Your task to perform on an android device: open a bookmark in the chrome app Image 0: 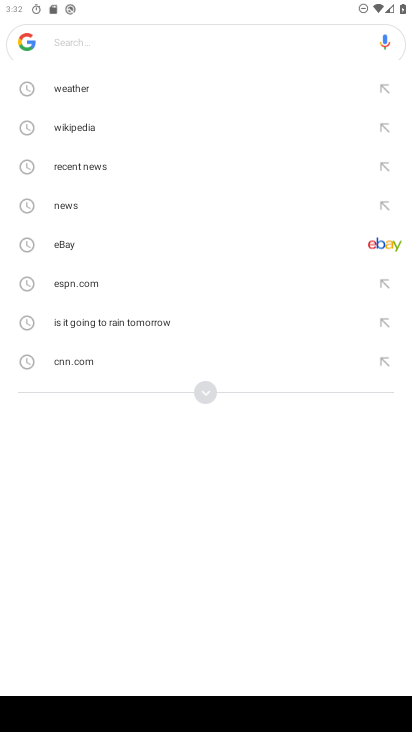
Step 0: press home button
Your task to perform on an android device: open a bookmark in the chrome app Image 1: 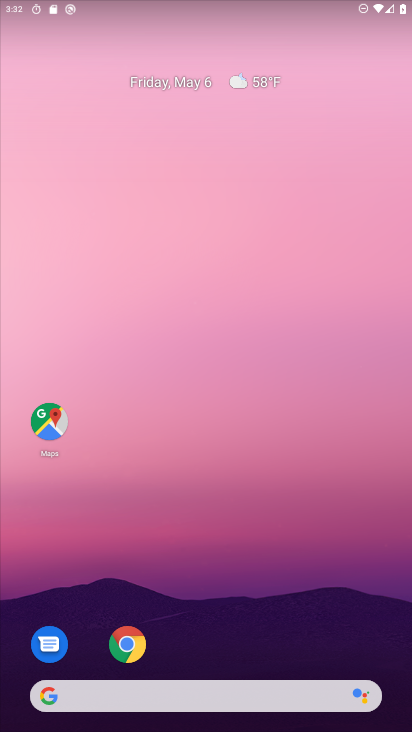
Step 1: click (120, 639)
Your task to perform on an android device: open a bookmark in the chrome app Image 2: 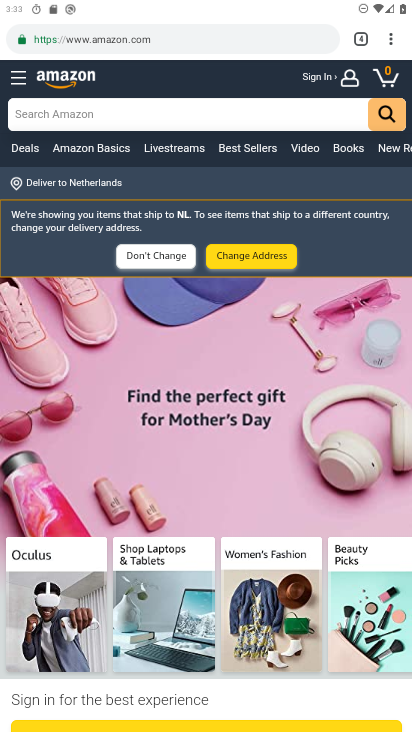
Step 2: task complete